Your task to perform on an android device: turn on improve location accuracy Image 0: 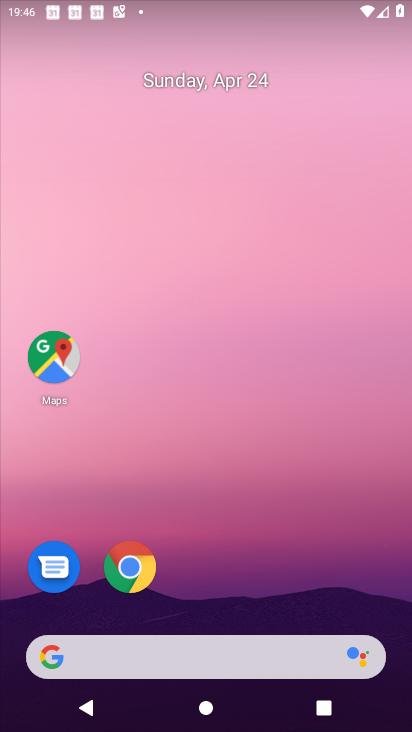
Step 0: drag from (292, 698) to (303, 240)
Your task to perform on an android device: turn on improve location accuracy Image 1: 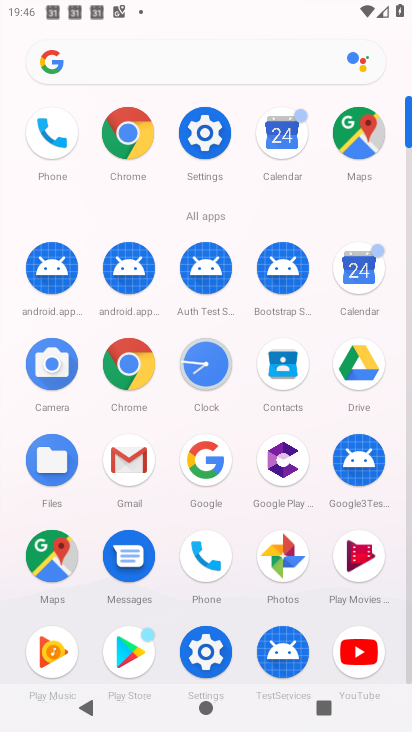
Step 1: click (211, 143)
Your task to perform on an android device: turn on improve location accuracy Image 2: 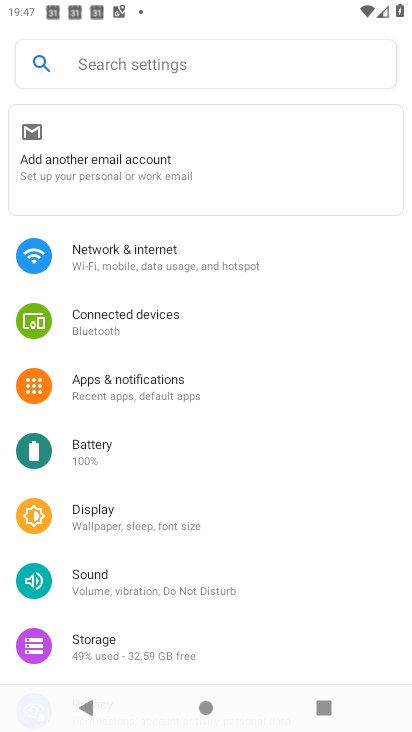
Step 2: drag from (152, 633) to (136, 443)
Your task to perform on an android device: turn on improve location accuracy Image 3: 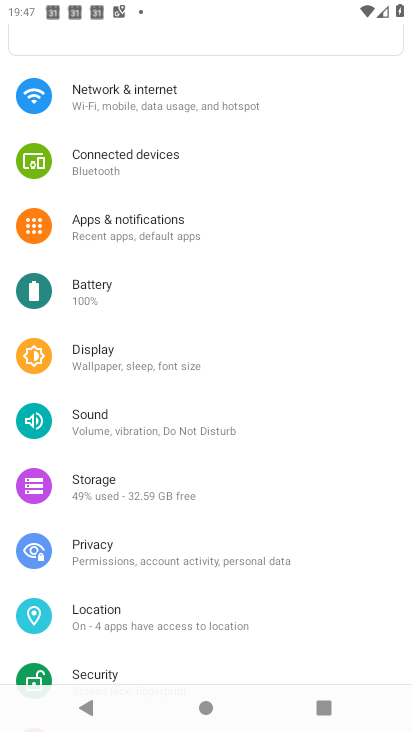
Step 3: click (150, 604)
Your task to perform on an android device: turn on improve location accuracy Image 4: 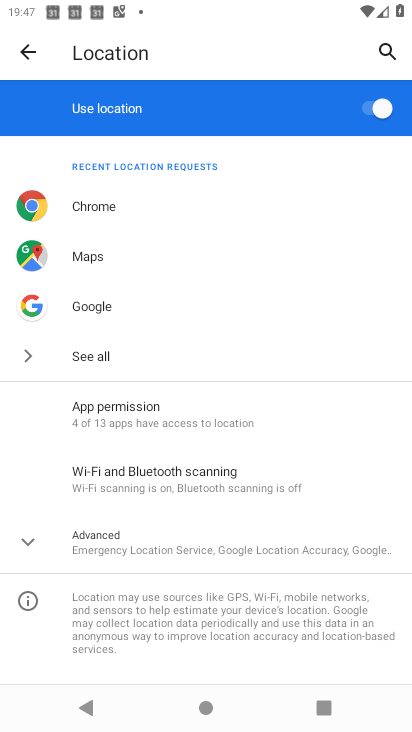
Step 4: drag from (136, 538) to (146, 477)
Your task to perform on an android device: turn on improve location accuracy Image 5: 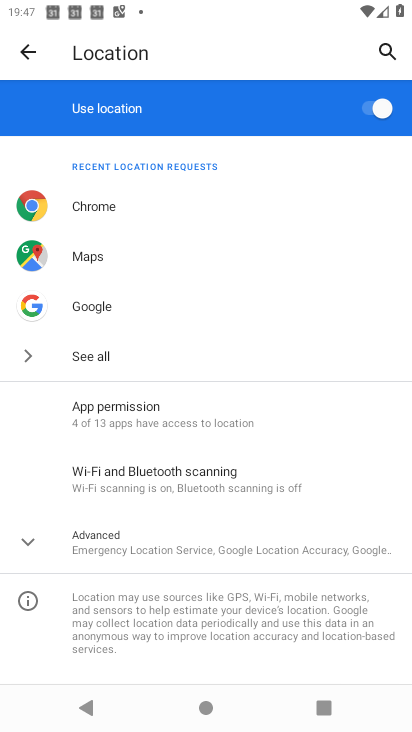
Step 5: click (124, 548)
Your task to perform on an android device: turn on improve location accuracy Image 6: 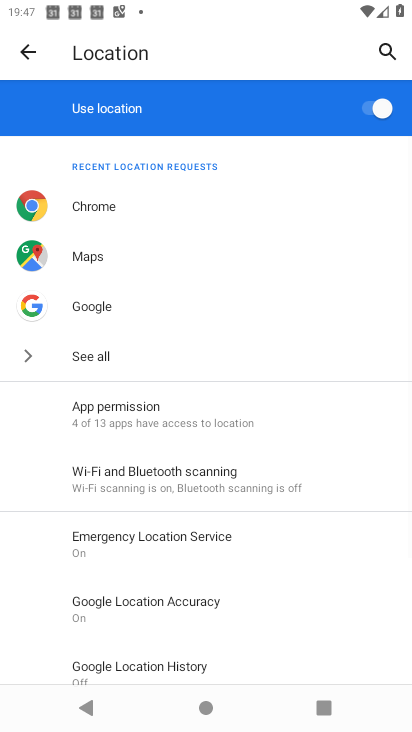
Step 6: click (207, 606)
Your task to perform on an android device: turn on improve location accuracy Image 7: 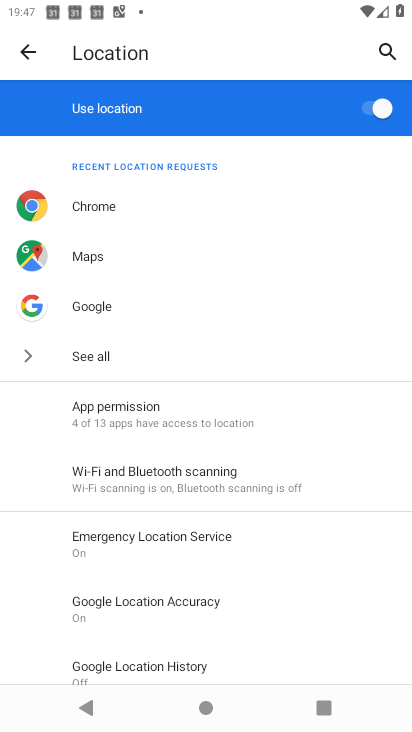
Step 7: click (235, 617)
Your task to perform on an android device: turn on improve location accuracy Image 8: 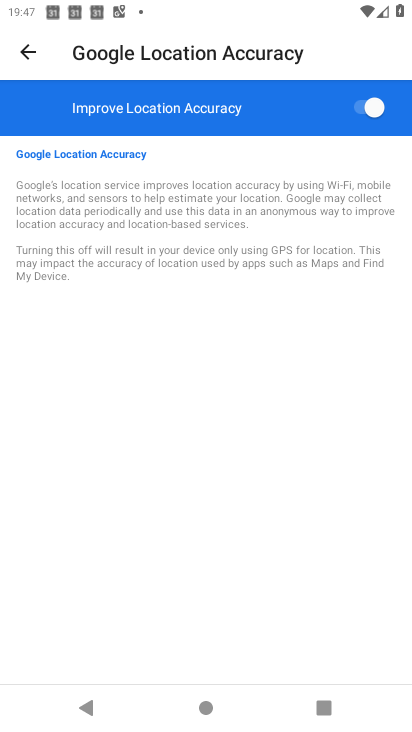
Step 8: click (367, 93)
Your task to perform on an android device: turn on improve location accuracy Image 9: 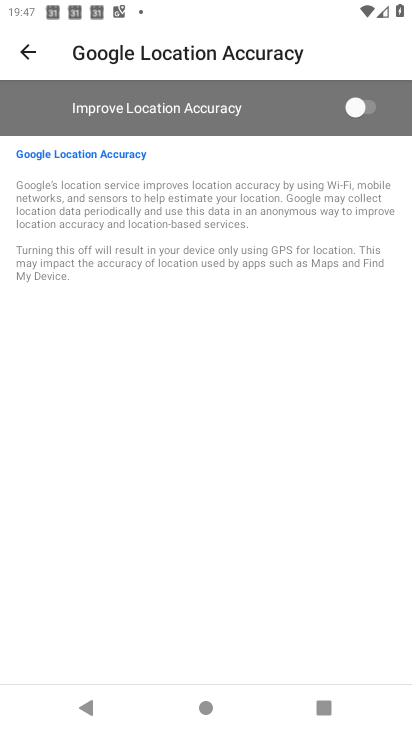
Step 9: click (366, 106)
Your task to perform on an android device: turn on improve location accuracy Image 10: 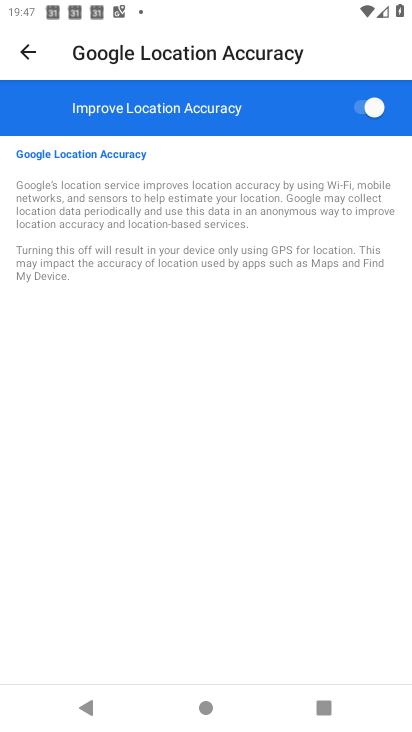
Step 10: task complete